Your task to perform on an android device: Set the phone to "Do not disturb". Image 0: 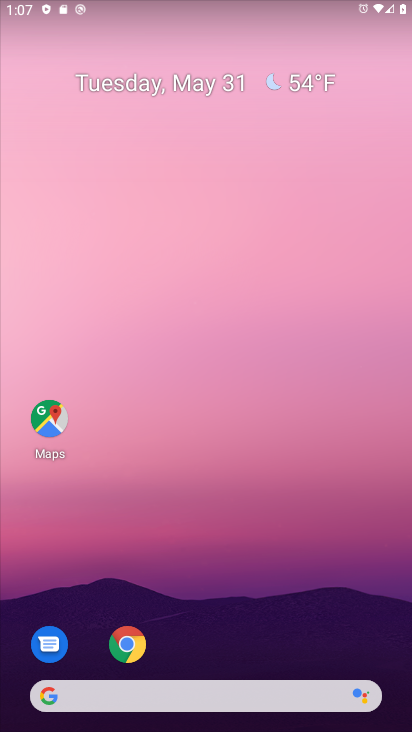
Step 0: press home button
Your task to perform on an android device: Set the phone to "Do not disturb". Image 1: 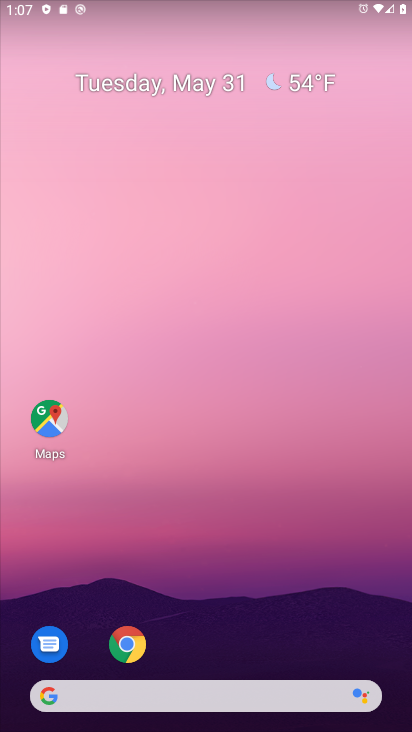
Step 1: drag from (242, 289) to (234, 541)
Your task to perform on an android device: Set the phone to "Do not disturb". Image 2: 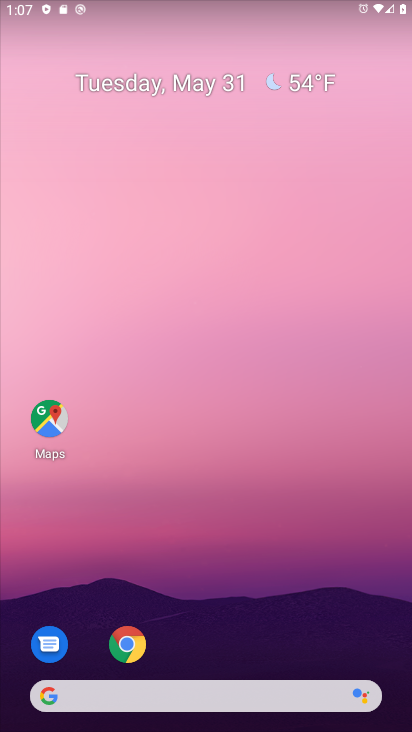
Step 2: drag from (212, 8) to (225, 443)
Your task to perform on an android device: Set the phone to "Do not disturb". Image 3: 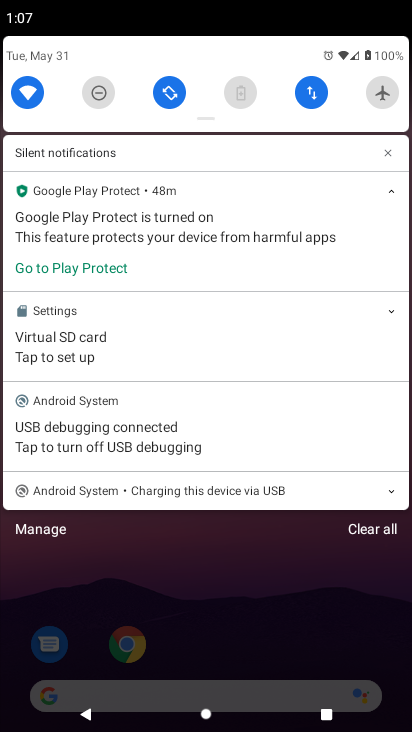
Step 3: drag from (218, 129) to (174, 488)
Your task to perform on an android device: Set the phone to "Do not disturb". Image 4: 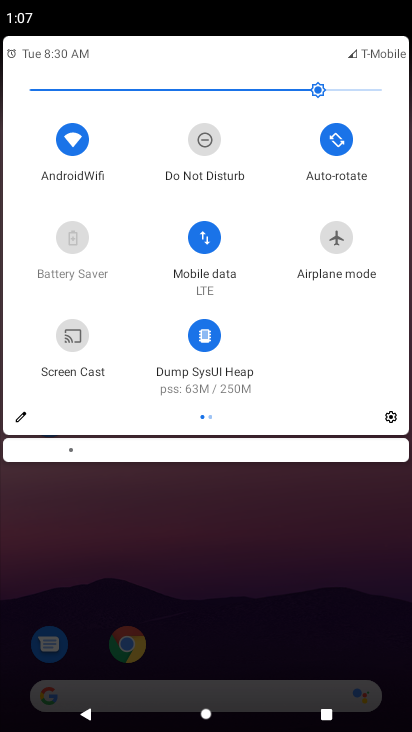
Step 4: drag from (208, 134) to (213, 178)
Your task to perform on an android device: Set the phone to "Do not disturb". Image 5: 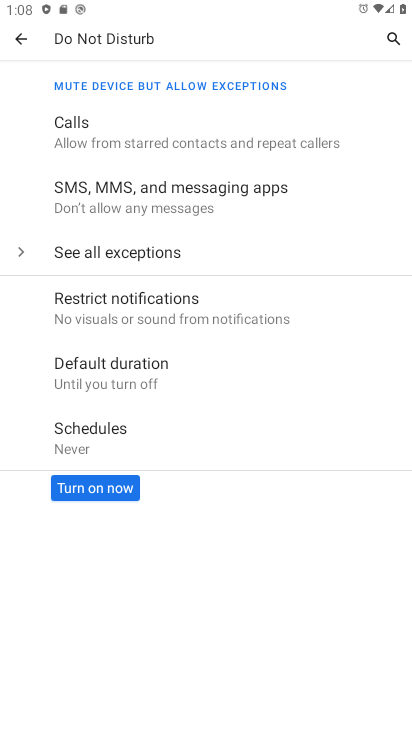
Step 5: click (104, 492)
Your task to perform on an android device: Set the phone to "Do not disturb". Image 6: 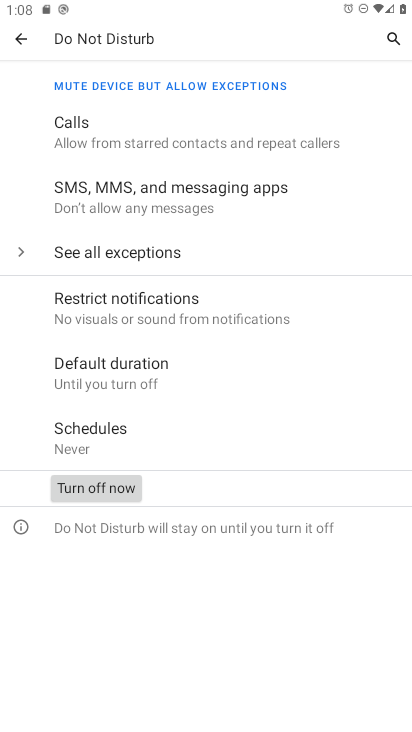
Step 6: click (30, 32)
Your task to perform on an android device: Set the phone to "Do not disturb". Image 7: 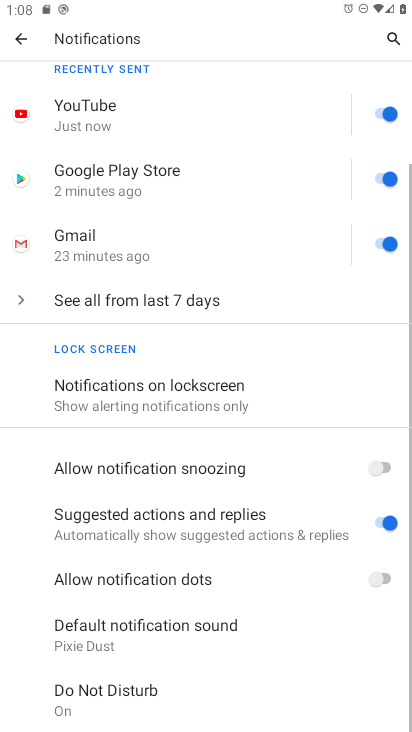
Step 7: task complete